Your task to perform on an android device: Check the weather Image 0: 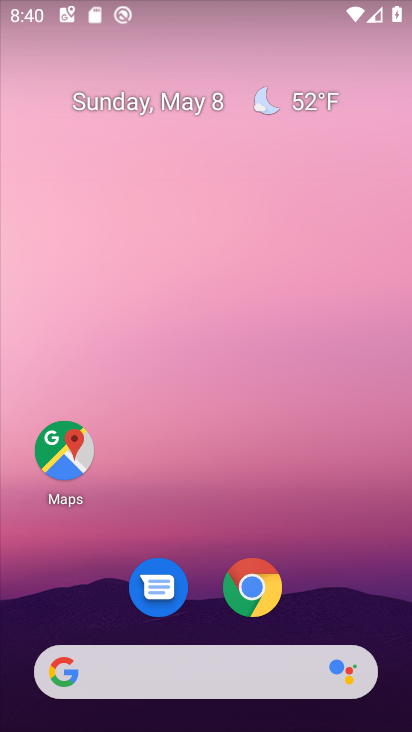
Step 0: click (265, 602)
Your task to perform on an android device: Check the weather Image 1: 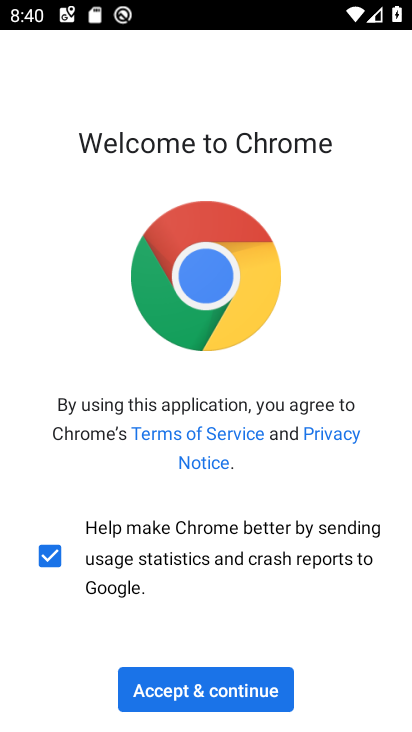
Step 1: click (247, 692)
Your task to perform on an android device: Check the weather Image 2: 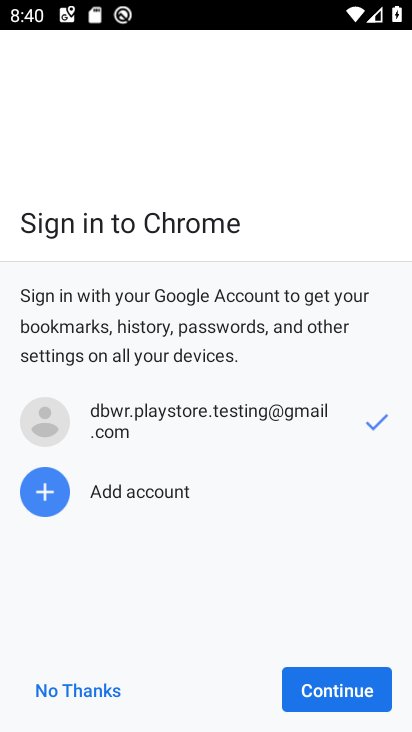
Step 2: click (314, 678)
Your task to perform on an android device: Check the weather Image 3: 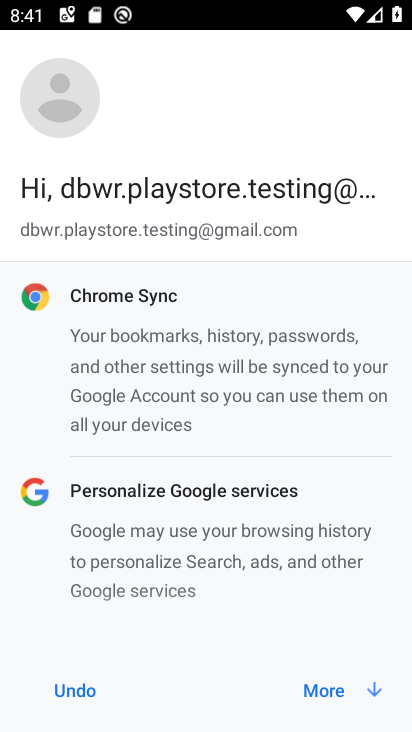
Step 3: click (311, 692)
Your task to perform on an android device: Check the weather Image 4: 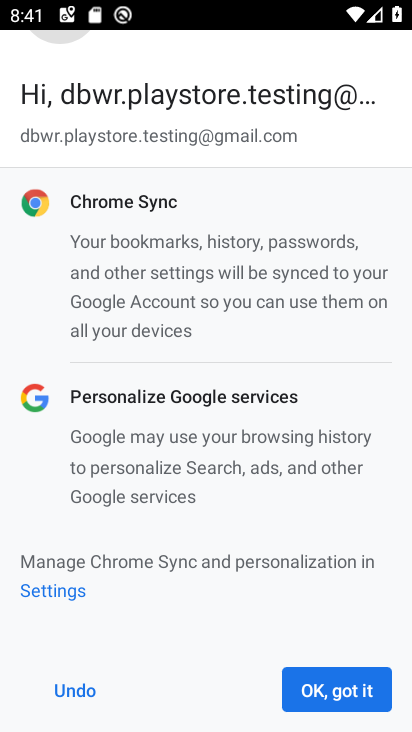
Step 4: click (311, 692)
Your task to perform on an android device: Check the weather Image 5: 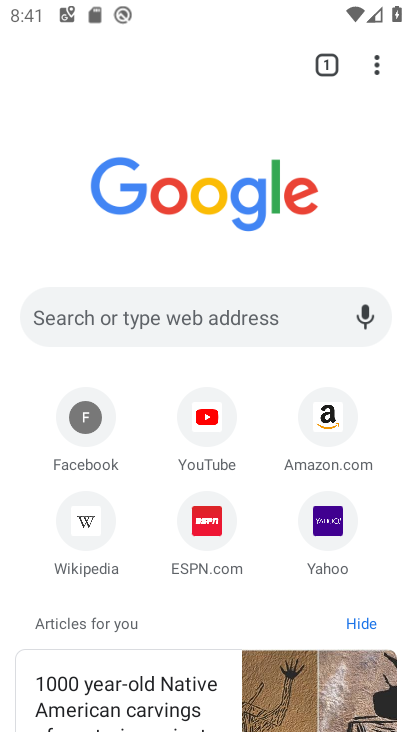
Step 5: click (204, 298)
Your task to perform on an android device: Check the weather Image 6: 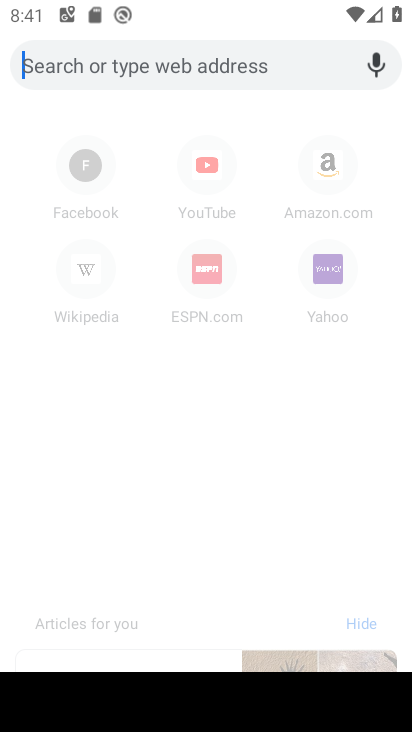
Step 6: type "weather"
Your task to perform on an android device: Check the weather Image 7: 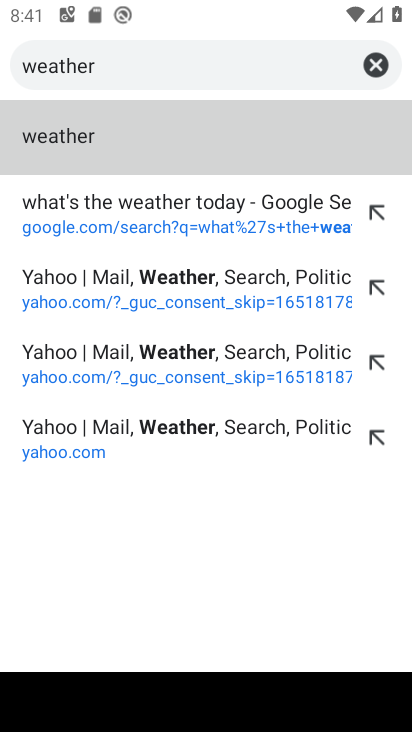
Step 7: click (77, 136)
Your task to perform on an android device: Check the weather Image 8: 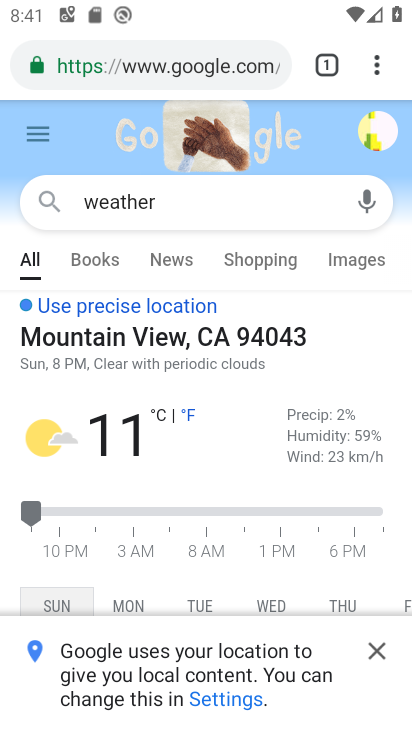
Step 8: click (385, 651)
Your task to perform on an android device: Check the weather Image 9: 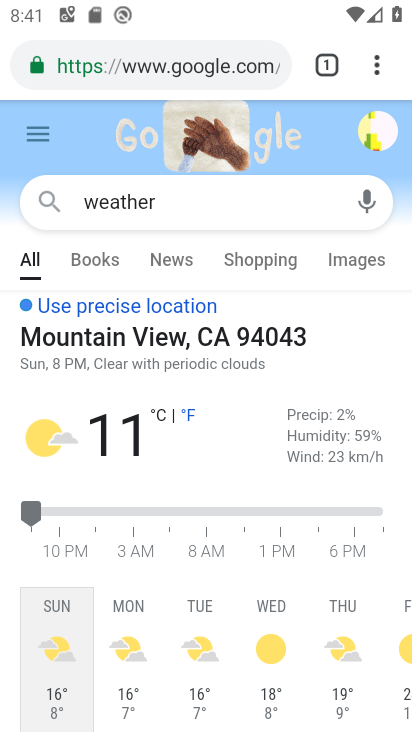
Step 9: task complete